Your task to perform on an android device: Open the calendar and show me this week's events Image 0: 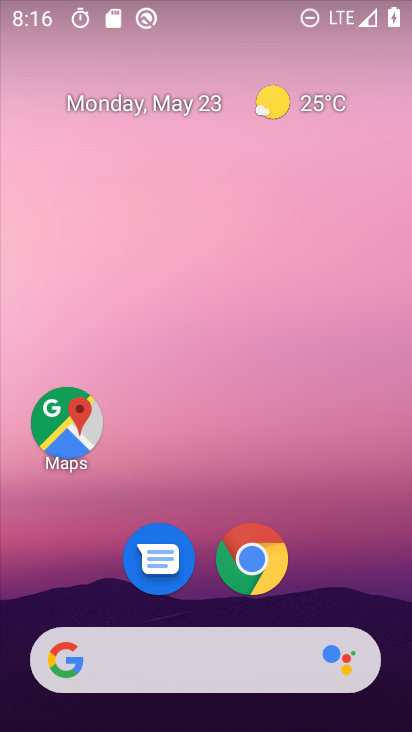
Step 0: drag from (380, 665) to (229, 3)
Your task to perform on an android device: Open the calendar and show me this week's events Image 1: 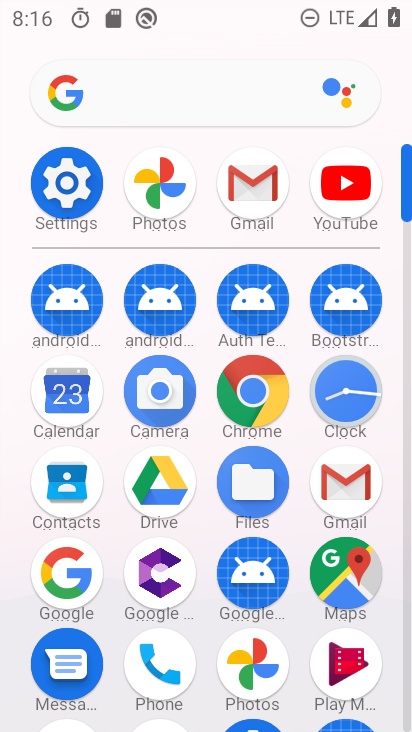
Step 1: click (59, 398)
Your task to perform on an android device: Open the calendar and show me this week's events Image 2: 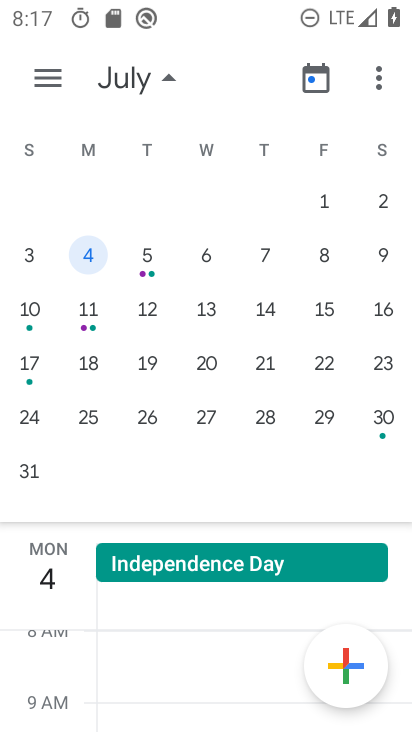
Step 2: task complete